Your task to perform on an android device: Go to CNN.com Image 0: 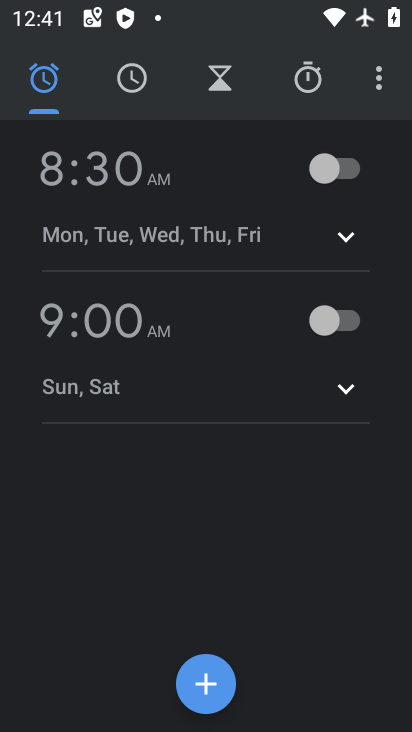
Step 0: press home button
Your task to perform on an android device: Go to CNN.com Image 1: 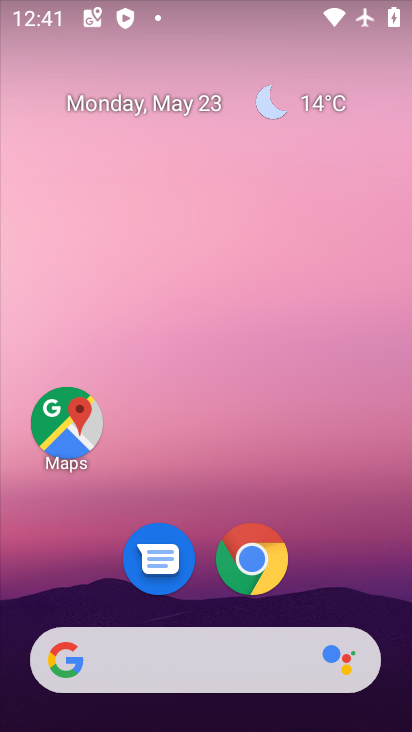
Step 1: click (260, 552)
Your task to perform on an android device: Go to CNN.com Image 2: 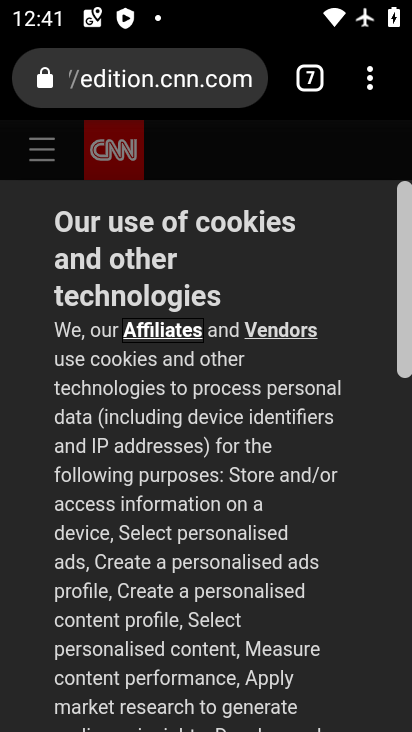
Step 2: task complete